Your task to perform on an android device: Open calendar and show me the second week of next month Image 0: 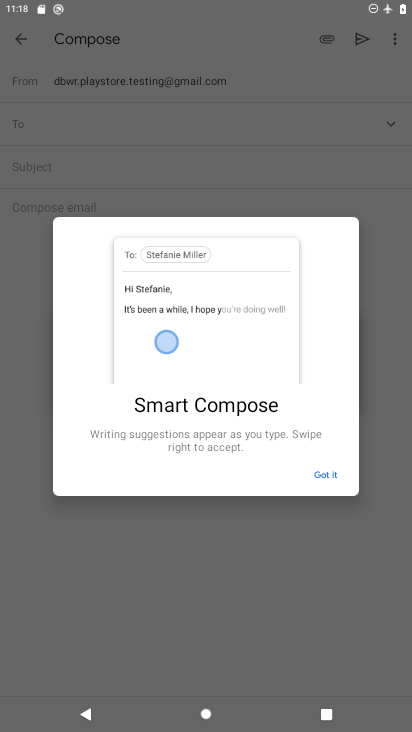
Step 0: click (326, 465)
Your task to perform on an android device: Open calendar and show me the second week of next month Image 1: 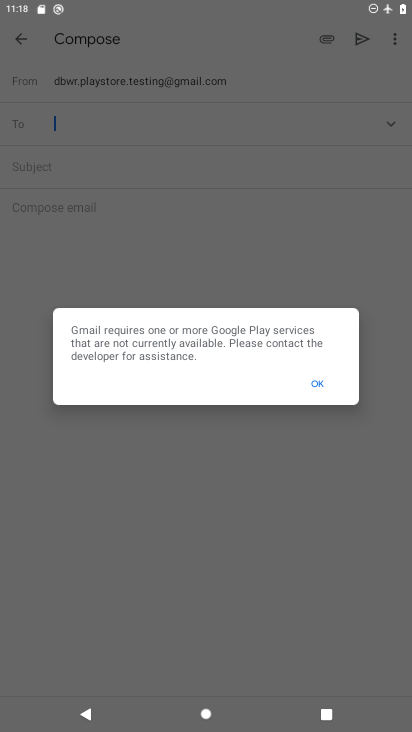
Step 1: press home button
Your task to perform on an android device: Open calendar and show me the second week of next month Image 2: 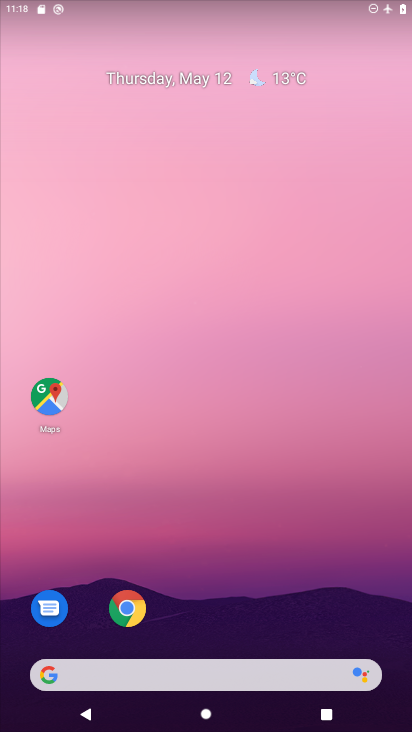
Step 2: drag from (206, 619) to (187, 135)
Your task to perform on an android device: Open calendar and show me the second week of next month Image 3: 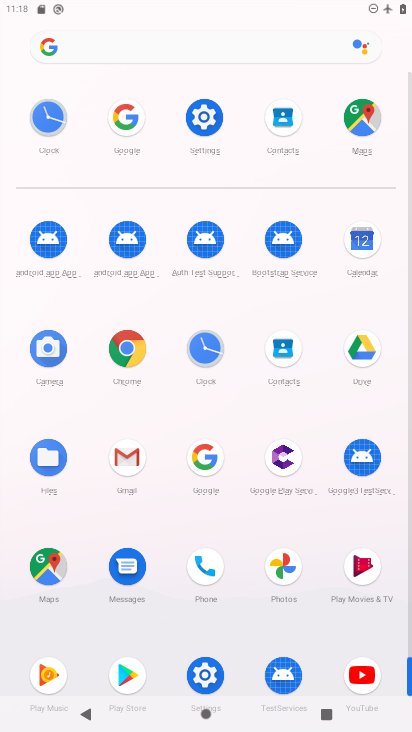
Step 3: click (367, 239)
Your task to perform on an android device: Open calendar and show me the second week of next month Image 4: 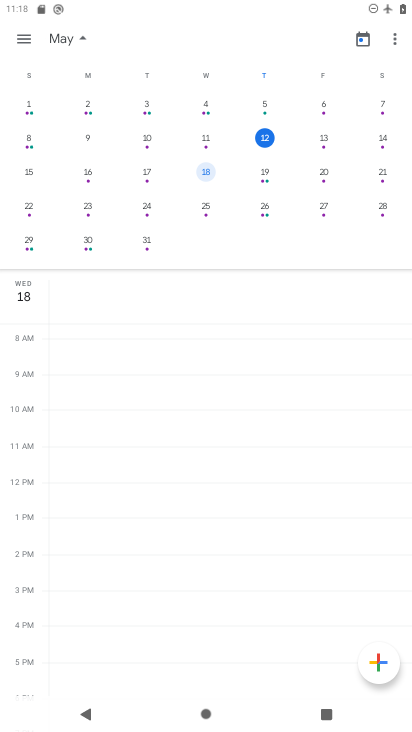
Step 4: drag from (393, 262) to (0, 245)
Your task to perform on an android device: Open calendar and show me the second week of next month Image 5: 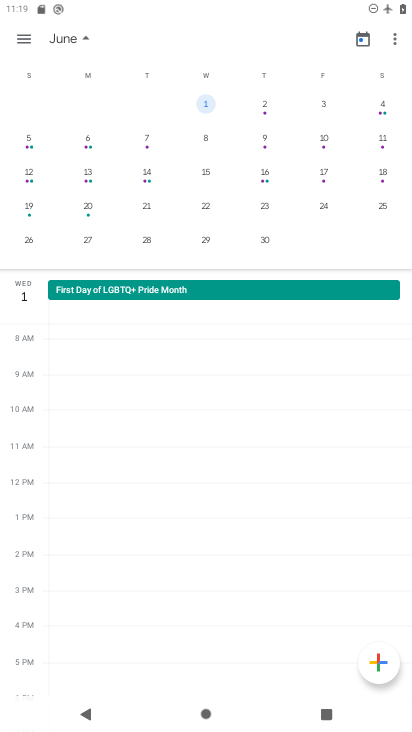
Step 5: click (326, 111)
Your task to perform on an android device: Open calendar and show me the second week of next month Image 6: 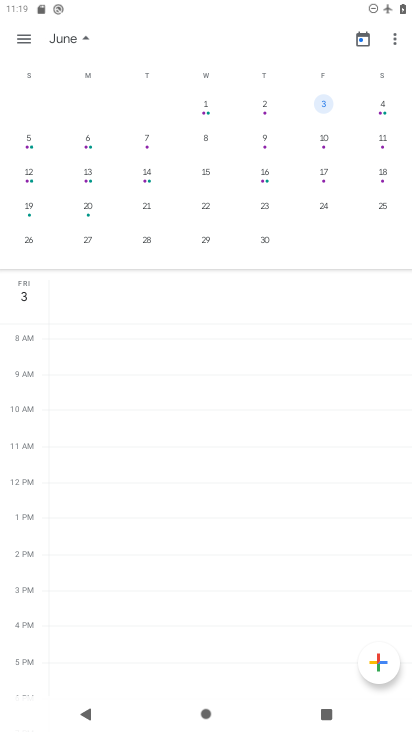
Step 6: task complete